Your task to perform on an android device: Open maps Image 0: 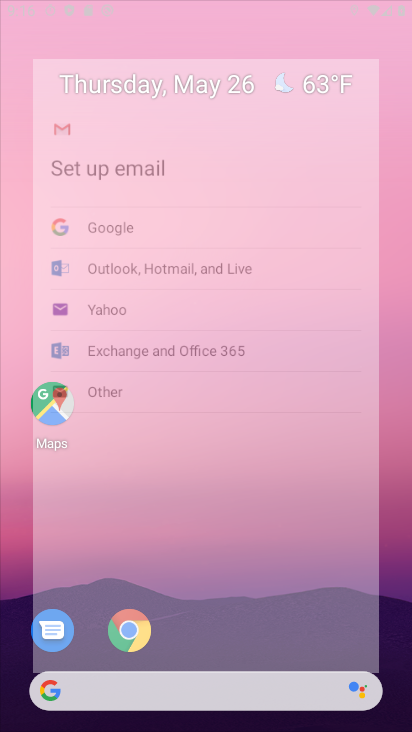
Step 0: drag from (276, 700) to (224, 312)
Your task to perform on an android device: Open maps Image 1: 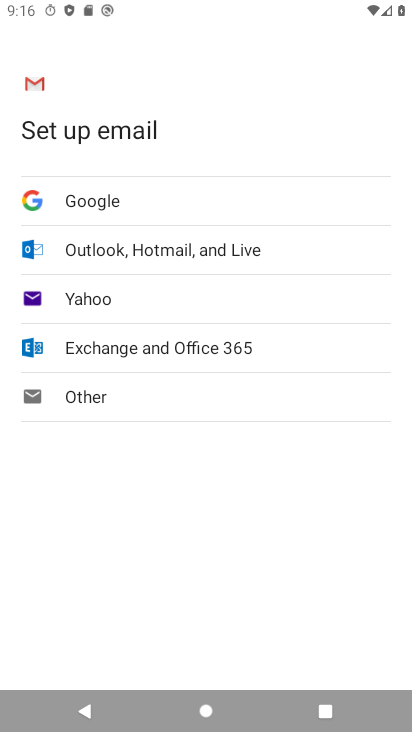
Step 1: press back button
Your task to perform on an android device: Open maps Image 2: 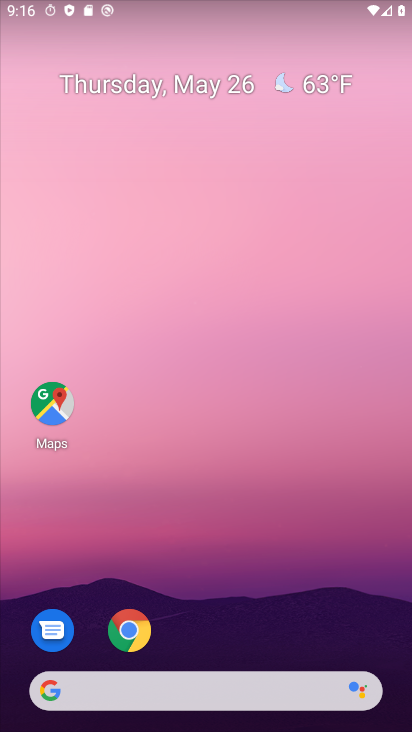
Step 2: drag from (242, 697) to (176, 202)
Your task to perform on an android device: Open maps Image 3: 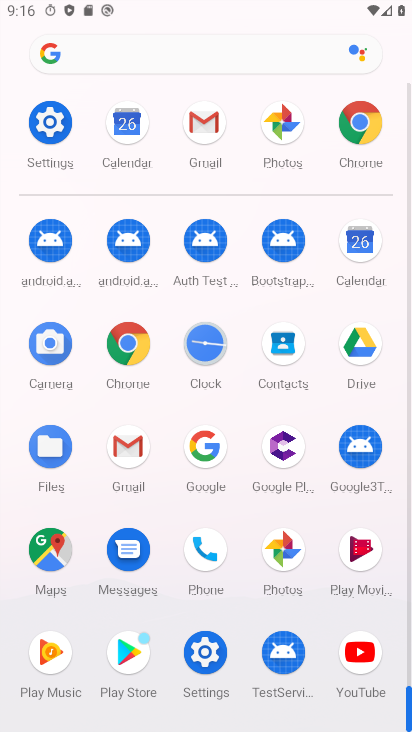
Step 3: click (48, 553)
Your task to perform on an android device: Open maps Image 4: 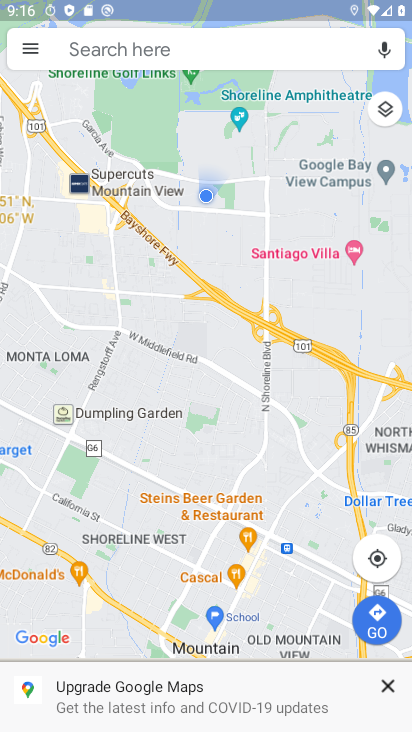
Step 4: task complete